Your task to perform on an android device: add a contact in the contacts app Image 0: 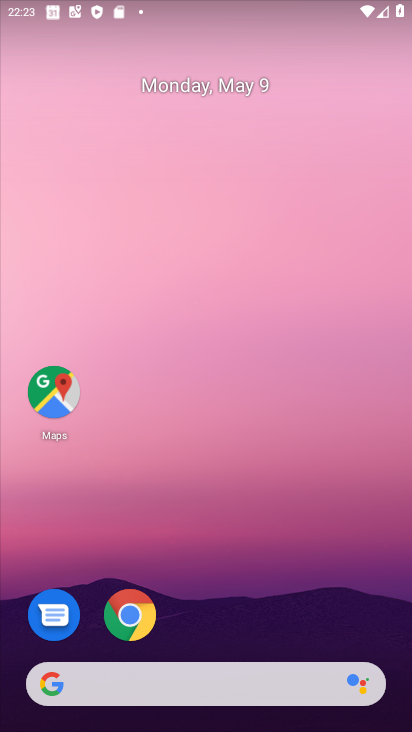
Step 0: drag from (208, 622) to (220, 224)
Your task to perform on an android device: add a contact in the contacts app Image 1: 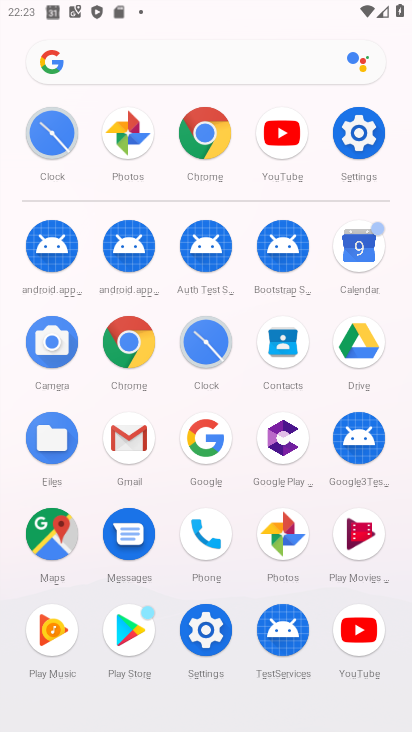
Step 1: click (281, 352)
Your task to perform on an android device: add a contact in the contacts app Image 2: 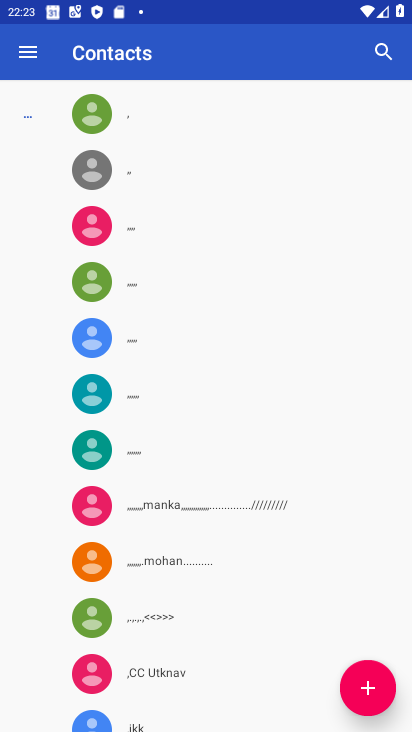
Step 2: click (369, 692)
Your task to perform on an android device: add a contact in the contacts app Image 3: 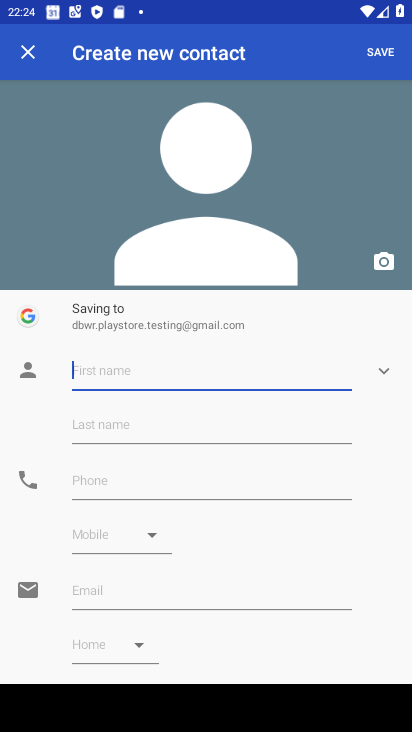
Step 3: type "dssc"
Your task to perform on an android device: add a contact in the contacts app Image 4: 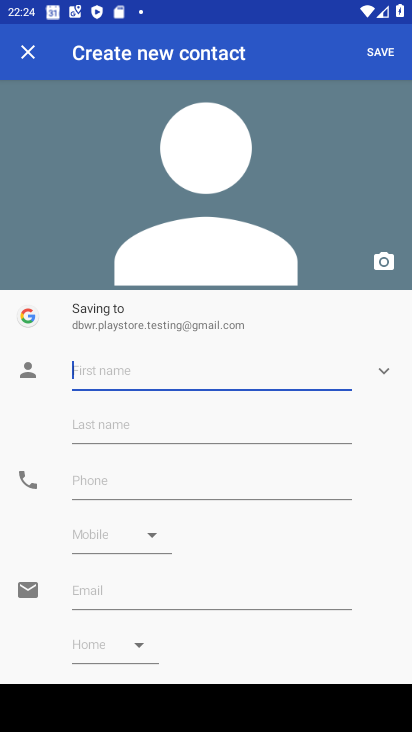
Step 4: click (93, 430)
Your task to perform on an android device: add a contact in the contacts app Image 5: 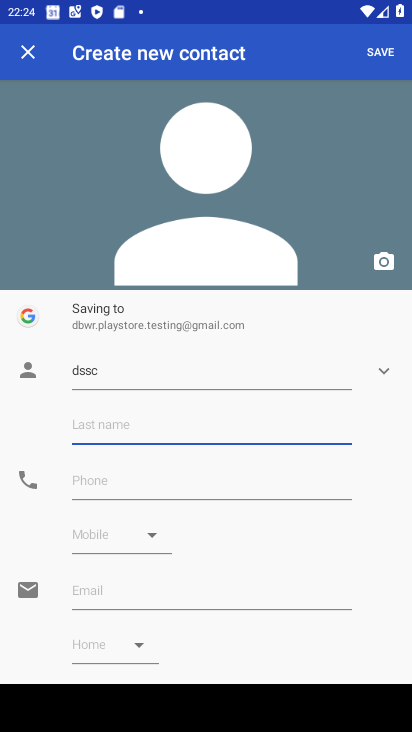
Step 5: type "dc"
Your task to perform on an android device: add a contact in the contacts app Image 6: 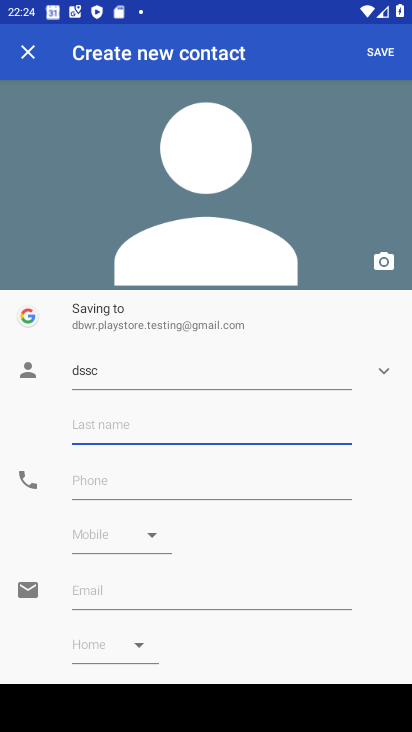
Step 6: click (111, 481)
Your task to perform on an android device: add a contact in the contacts app Image 7: 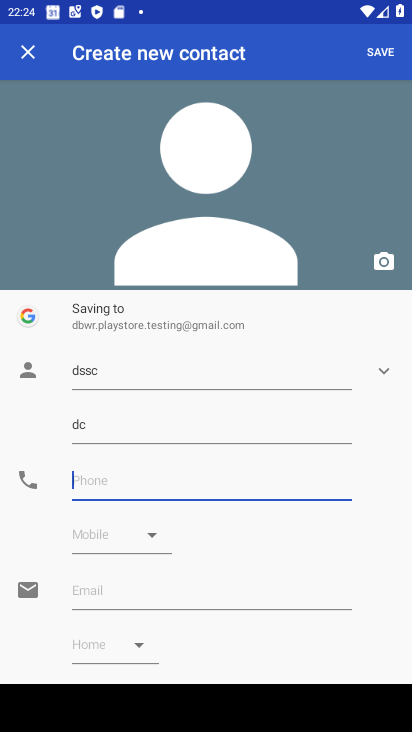
Step 7: type "2322e2"
Your task to perform on an android device: add a contact in the contacts app Image 8: 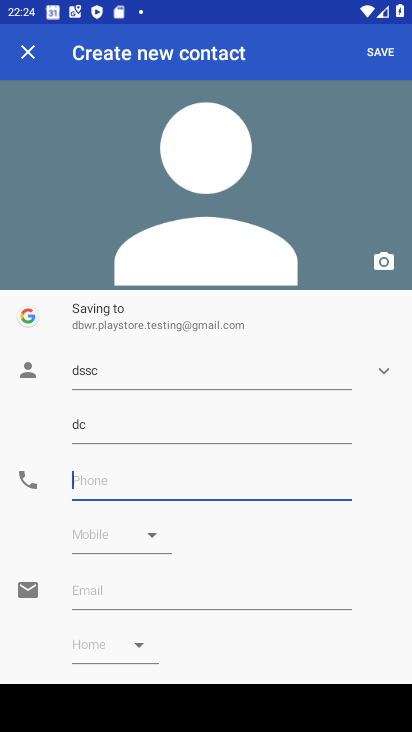
Step 8: click (94, 532)
Your task to perform on an android device: add a contact in the contacts app Image 9: 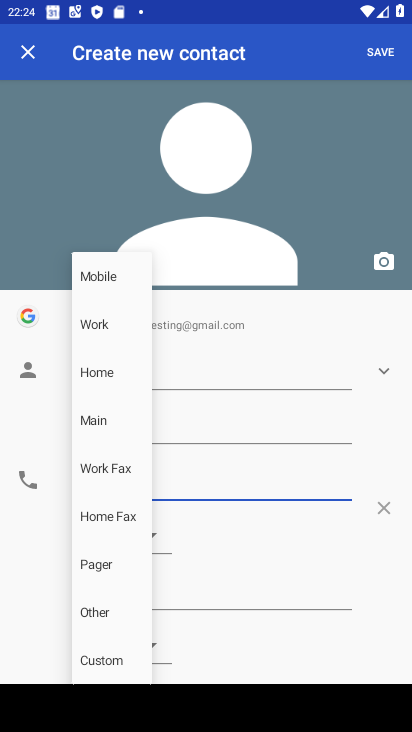
Step 9: click (384, 55)
Your task to perform on an android device: add a contact in the contacts app Image 10: 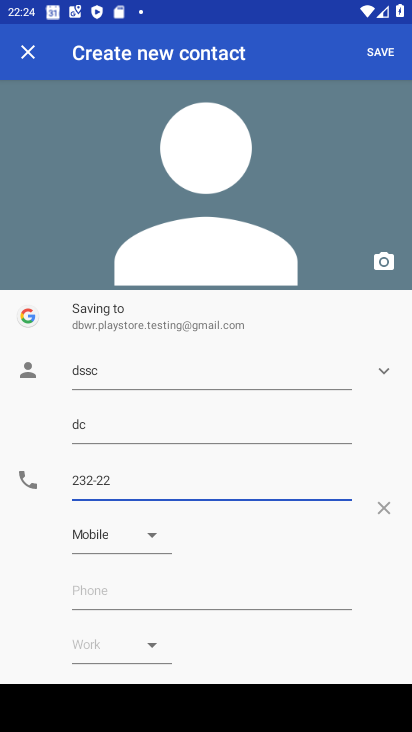
Step 10: click (387, 52)
Your task to perform on an android device: add a contact in the contacts app Image 11: 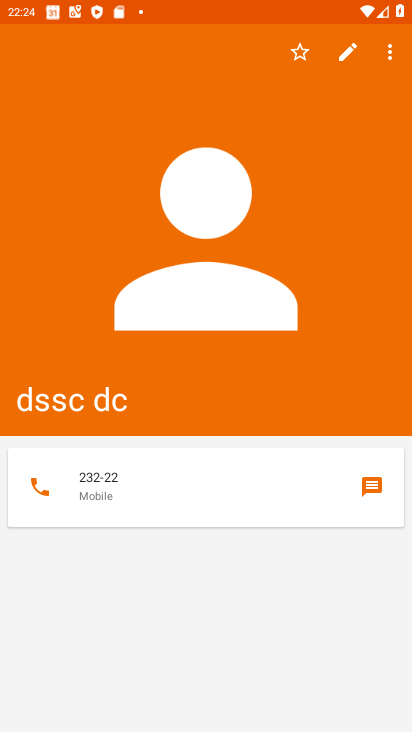
Step 11: task complete